Your task to perform on an android device: Open calendar and show me the third week of next month Image 0: 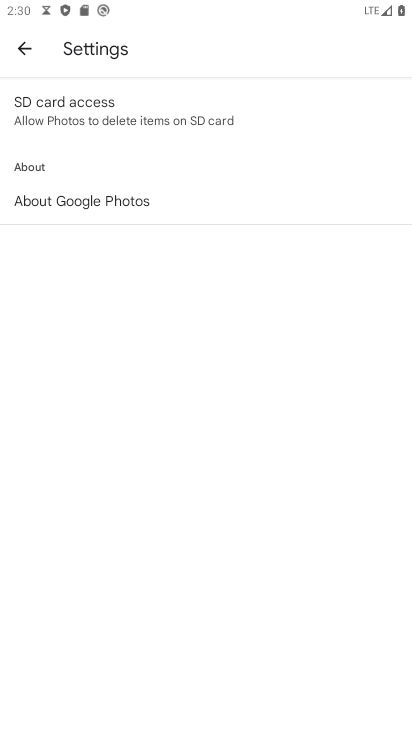
Step 0: press home button
Your task to perform on an android device: Open calendar and show me the third week of next month Image 1: 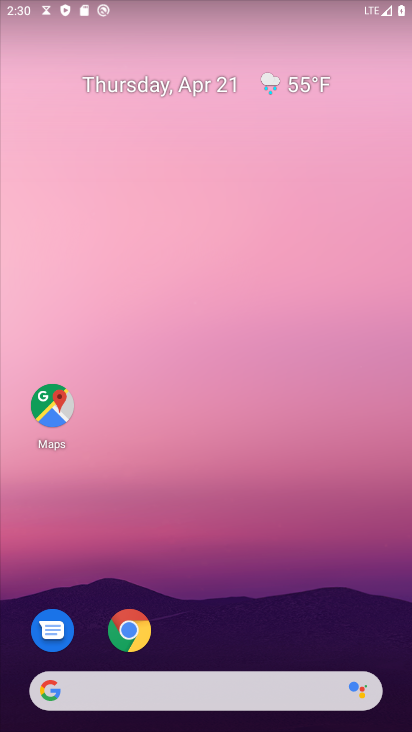
Step 1: drag from (366, 653) to (333, 7)
Your task to perform on an android device: Open calendar and show me the third week of next month Image 2: 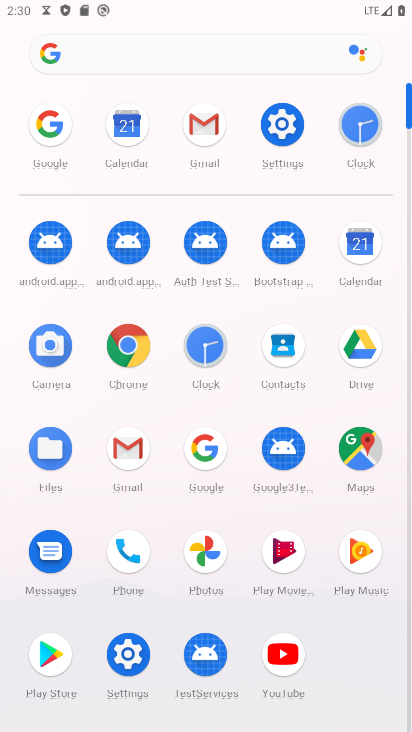
Step 2: click (125, 132)
Your task to perform on an android device: Open calendar and show me the third week of next month Image 3: 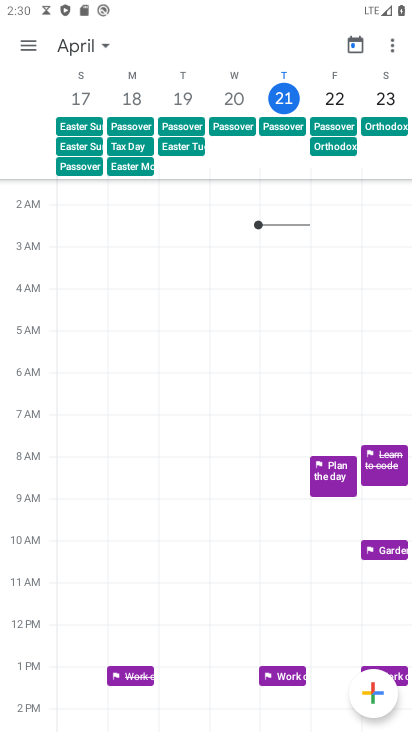
Step 3: click (109, 50)
Your task to perform on an android device: Open calendar and show me the third week of next month Image 4: 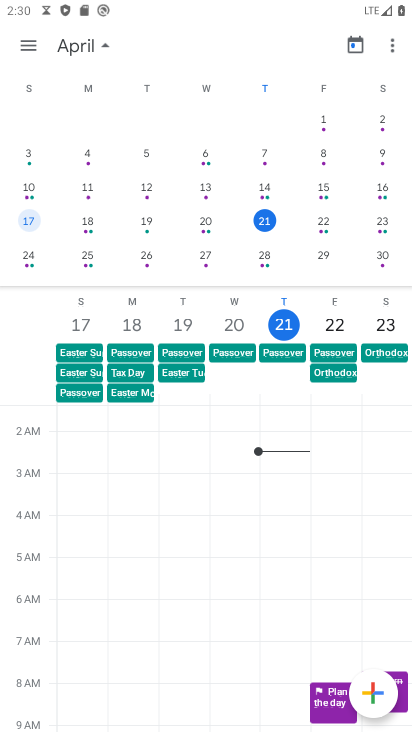
Step 4: task complete